Your task to perform on an android device: find snoozed emails in the gmail app Image 0: 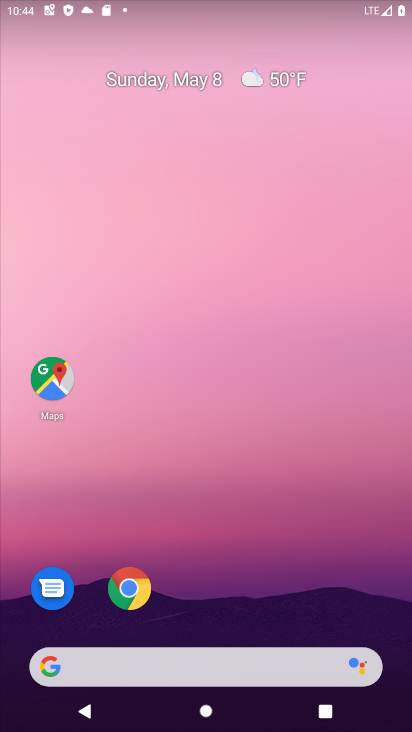
Step 0: drag from (266, 577) to (174, 53)
Your task to perform on an android device: find snoozed emails in the gmail app Image 1: 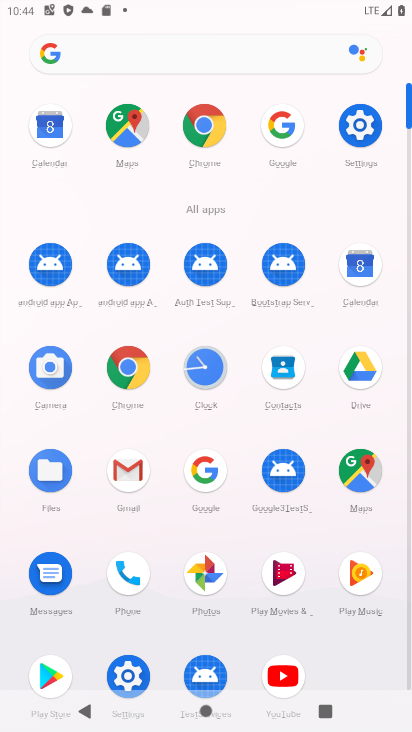
Step 1: click (122, 482)
Your task to perform on an android device: find snoozed emails in the gmail app Image 2: 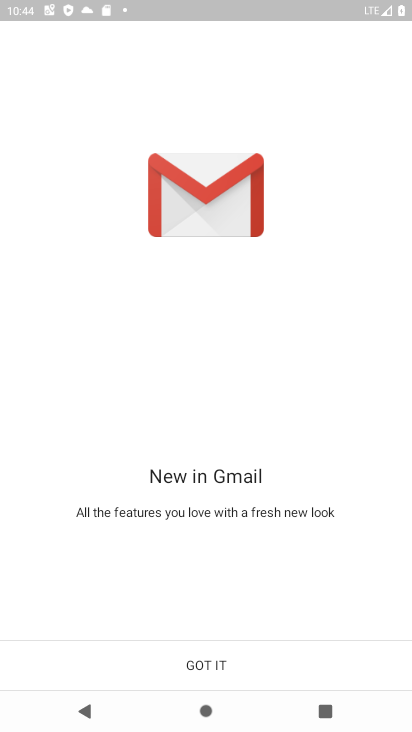
Step 2: click (209, 666)
Your task to perform on an android device: find snoozed emails in the gmail app Image 3: 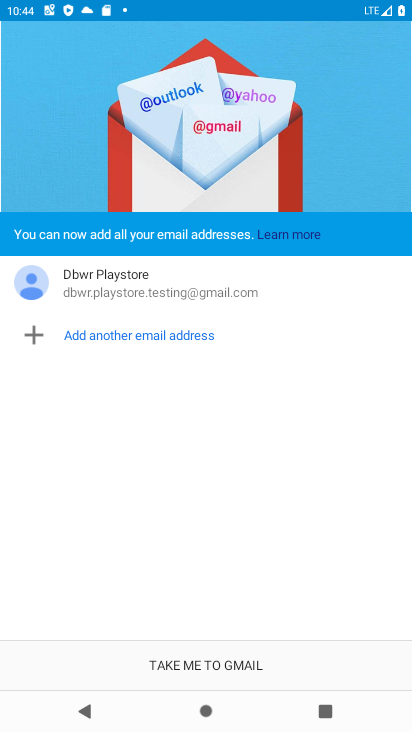
Step 3: click (212, 662)
Your task to perform on an android device: find snoozed emails in the gmail app Image 4: 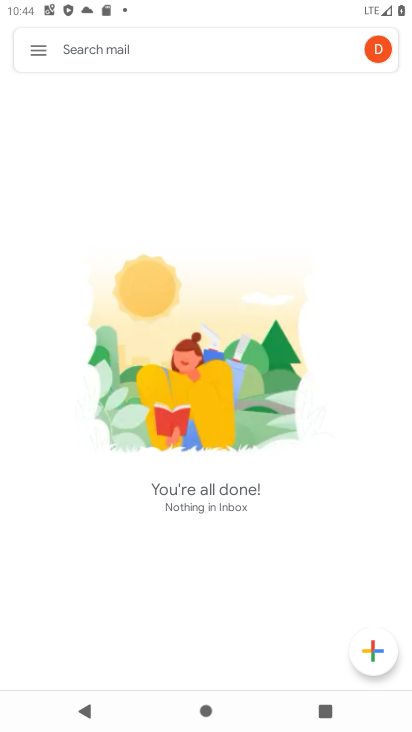
Step 4: click (36, 56)
Your task to perform on an android device: find snoozed emails in the gmail app Image 5: 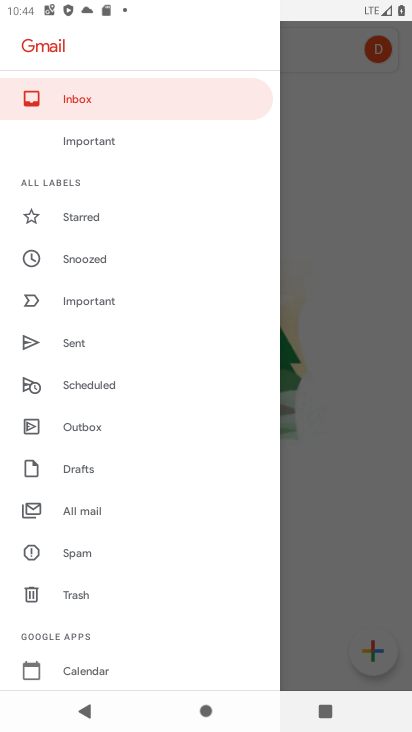
Step 5: click (128, 267)
Your task to perform on an android device: find snoozed emails in the gmail app Image 6: 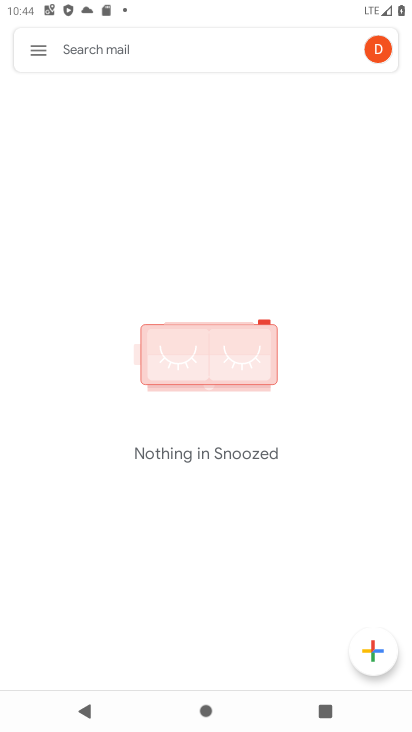
Step 6: task complete